Your task to perform on an android device: make emails show in primary in the gmail app Image 0: 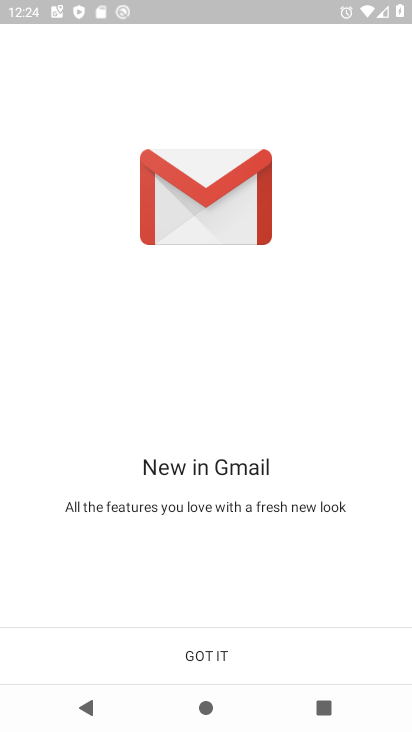
Step 0: click (328, 652)
Your task to perform on an android device: make emails show in primary in the gmail app Image 1: 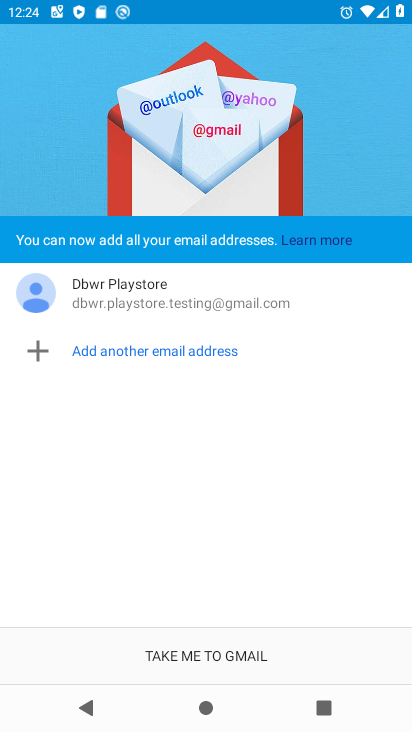
Step 1: click (326, 657)
Your task to perform on an android device: make emails show in primary in the gmail app Image 2: 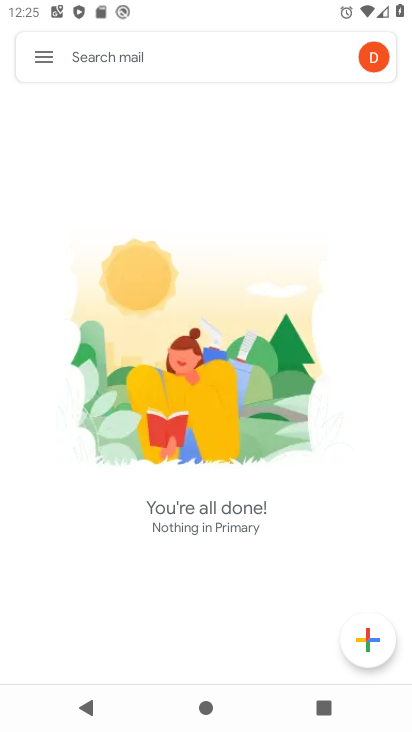
Step 2: click (52, 57)
Your task to perform on an android device: make emails show in primary in the gmail app Image 3: 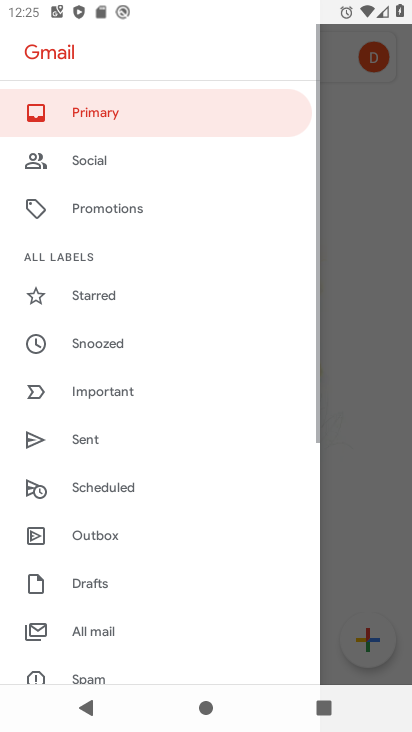
Step 3: drag from (181, 504) to (171, 263)
Your task to perform on an android device: make emails show in primary in the gmail app Image 4: 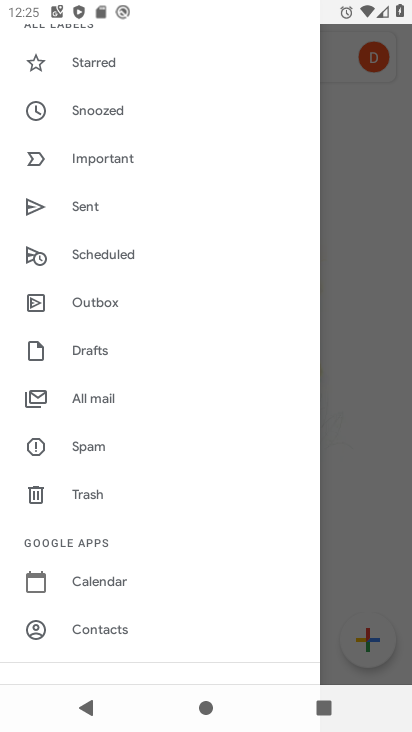
Step 4: drag from (114, 509) to (164, 295)
Your task to perform on an android device: make emails show in primary in the gmail app Image 5: 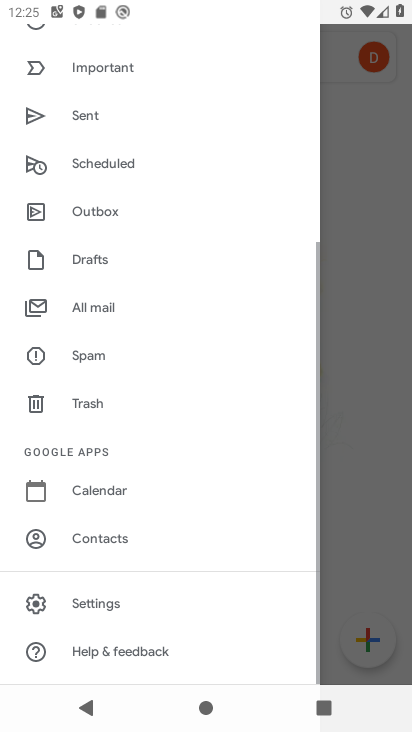
Step 5: click (179, 615)
Your task to perform on an android device: make emails show in primary in the gmail app Image 6: 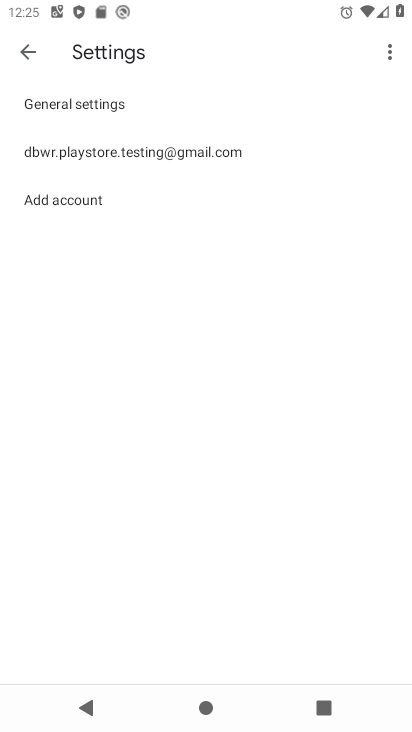
Step 6: click (113, 155)
Your task to perform on an android device: make emails show in primary in the gmail app Image 7: 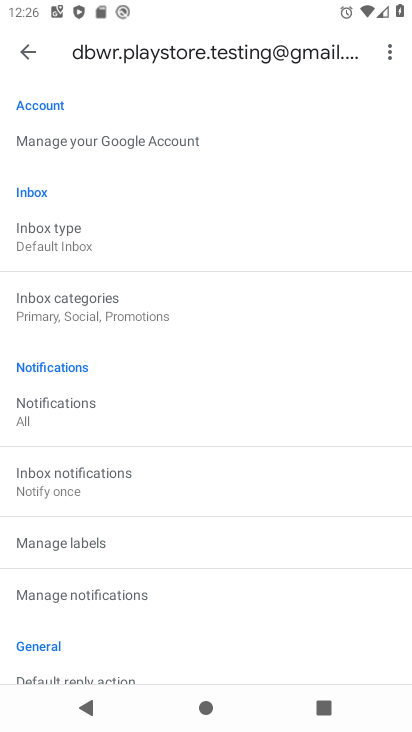
Step 7: click (92, 314)
Your task to perform on an android device: make emails show in primary in the gmail app Image 8: 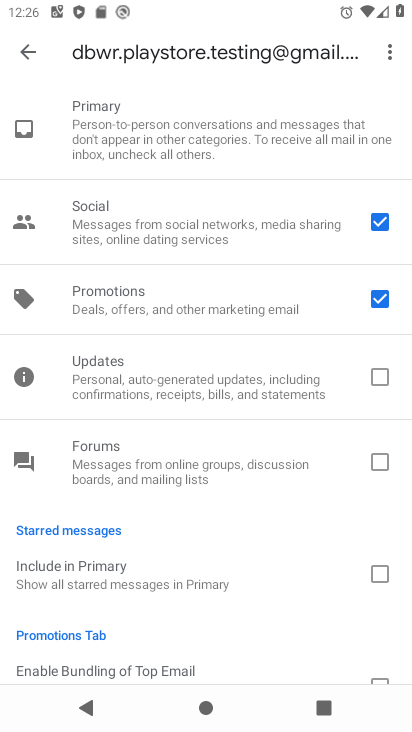
Step 8: click (383, 286)
Your task to perform on an android device: make emails show in primary in the gmail app Image 9: 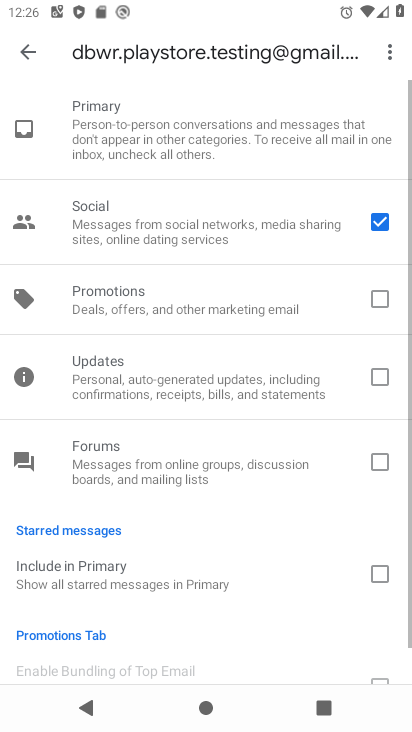
Step 9: click (373, 220)
Your task to perform on an android device: make emails show in primary in the gmail app Image 10: 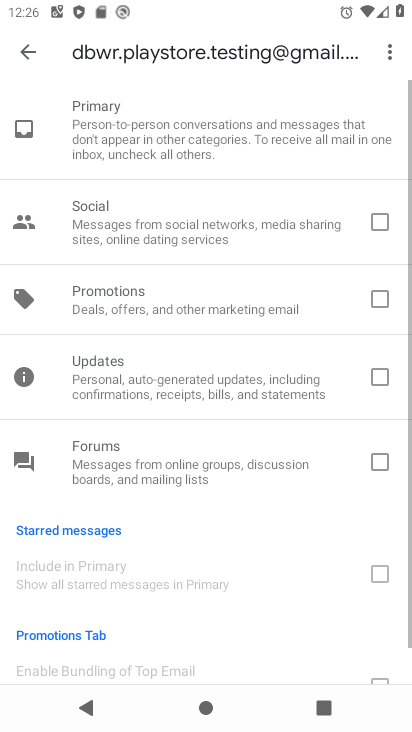
Step 10: click (35, 42)
Your task to perform on an android device: make emails show in primary in the gmail app Image 11: 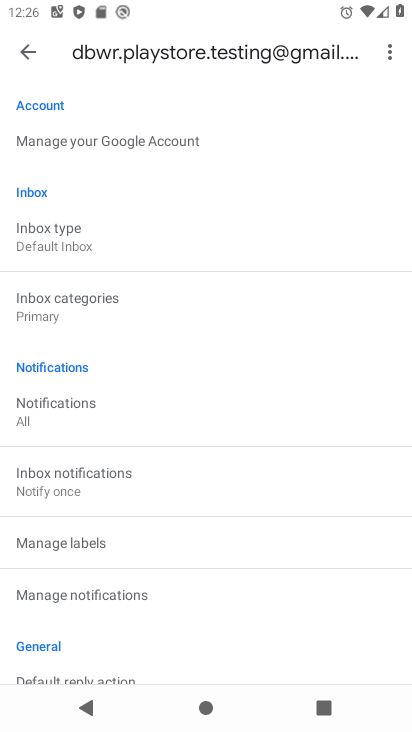
Step 11: task complete